Your task to perform on an android device: Turn off the flashlight Image 0: 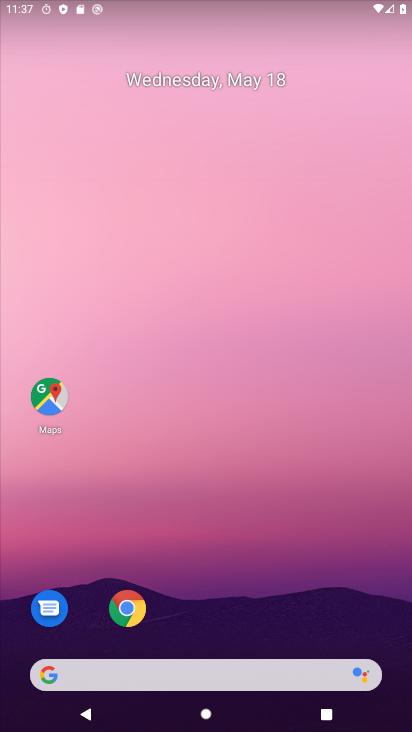
Step 0: drag from (273, 634) to (187, 15)
Your task to perform on an android device: Turn off the flashlight Image 1: 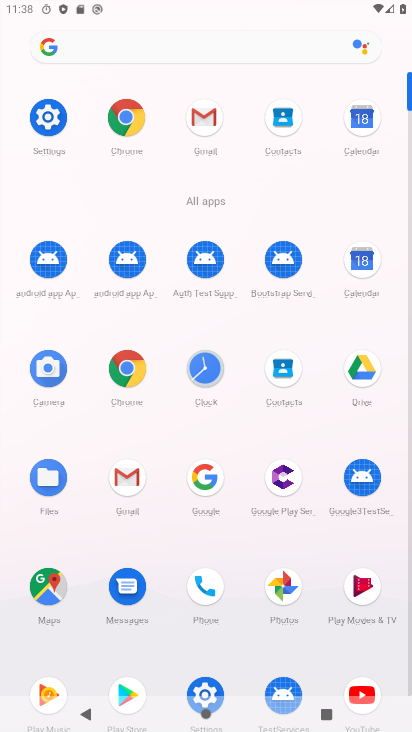
Step 1: drag from (242, 4) to (280, 427)
Your task to perform on an android device: Turn off the flashlight Image 2: 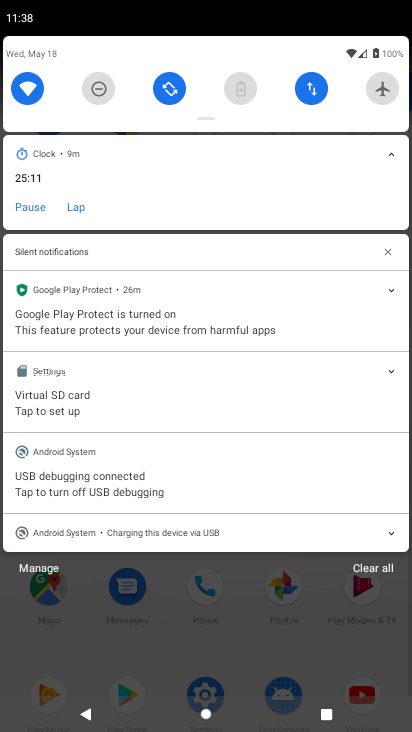
Step 2: drag from (206, 98) to (243, 594)
Your task to perform on an android device: Turn off the flashlight Image 3: 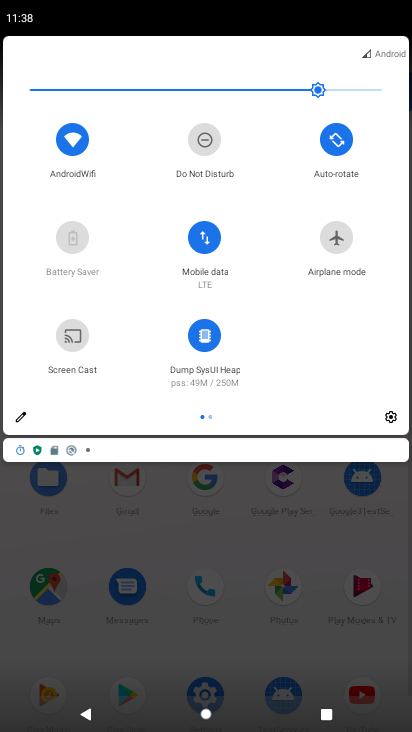
Step 3: click (15, 419)
Your task to perform on an android device: Turn off the flashlight Image 4: 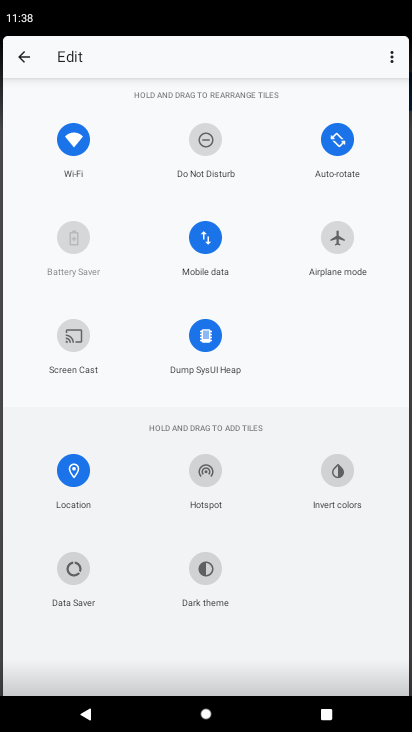
Step 4: task complete